Your task to perform on an android device: Go to notification settings Image 0: 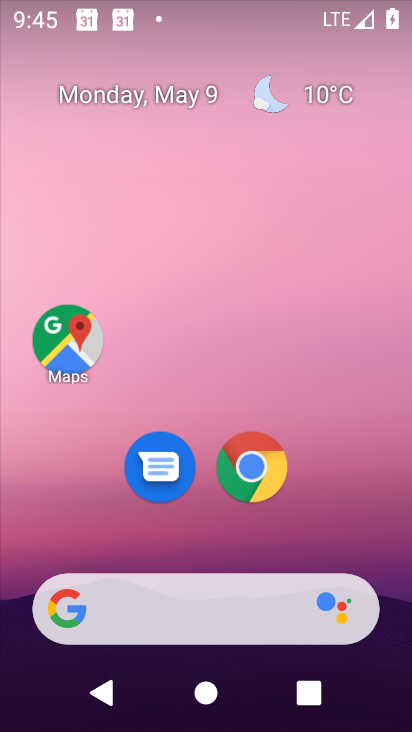
Step 0: press home button
Your task to perform on an android device: Go to notification settings Image 1: 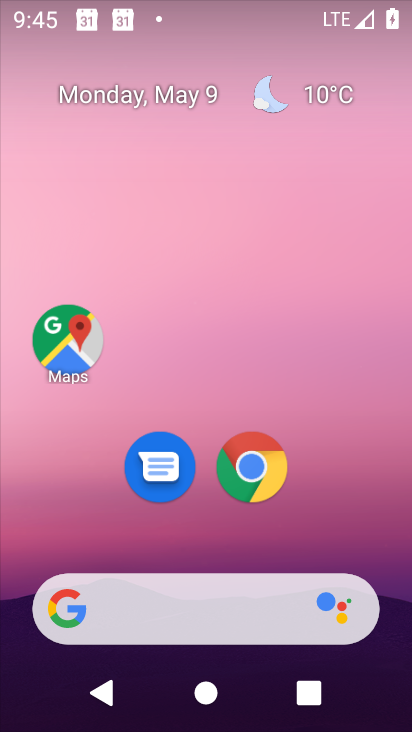
Step 1: drag from (375, 574) to (269, 20)
Your task to perform on an android device: Go to notification settings Image 2: 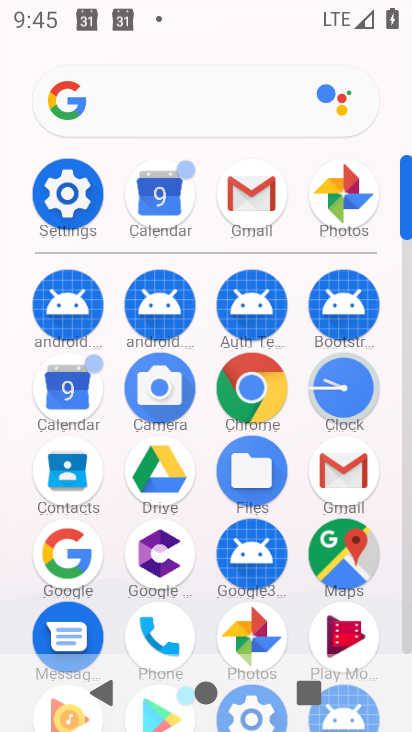
Step 2: click (63, 200)
Your task to perform on an android device: Go to notification settings Image 3: 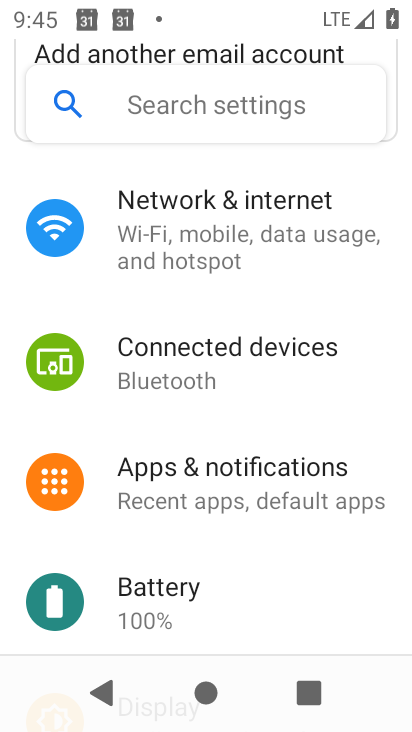
Step 3: click (353, 491)
Your task to perform on an android device: Go to notification settings Image 4: 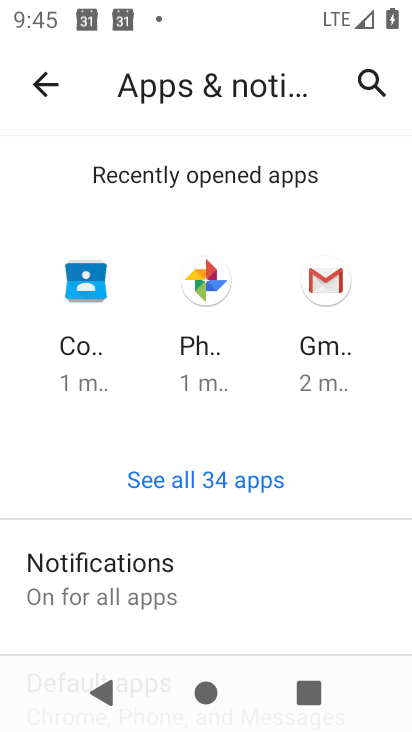
Step 4: task complete